Your task to perform on an android device: turn on improve location accuracy Image 0: 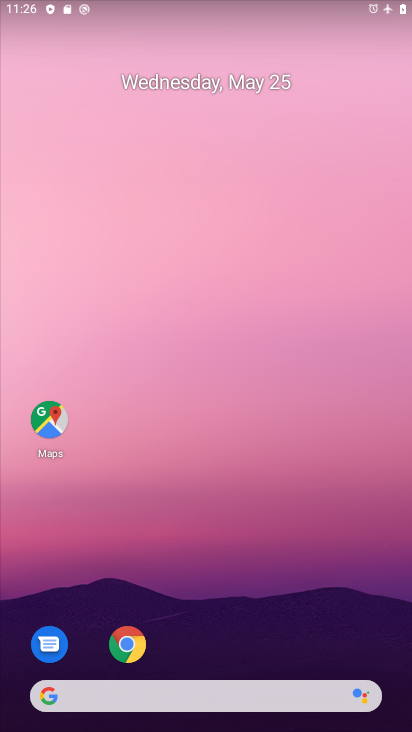
Step 0: drag from (310, 596) to (269, 90)
Your task to perform on an android device: turn on improve location accuracy Image 1: 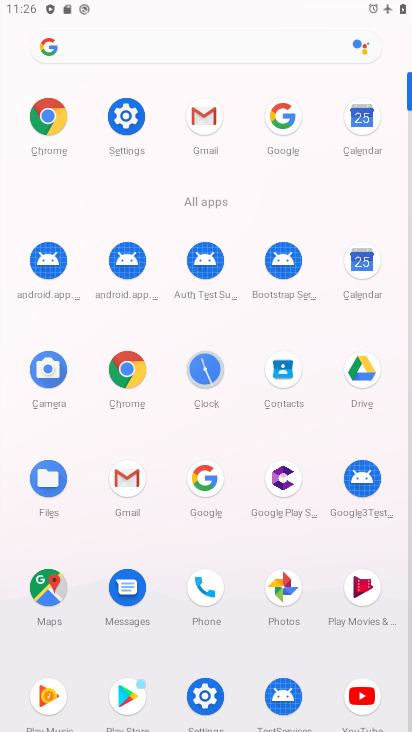
Step 1: click (205, 696)
Your task to perform on an android device: turn on improve location accuracy Image 2: 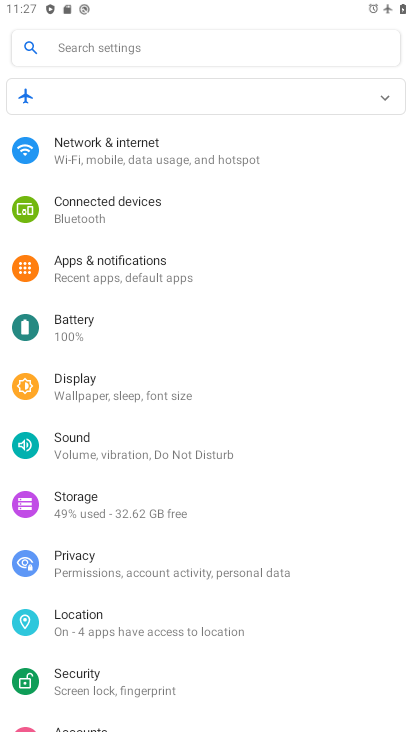
Step 2: click (73, 621)
Your task to perform on an android device: turn on improve location accuracy Image 3: 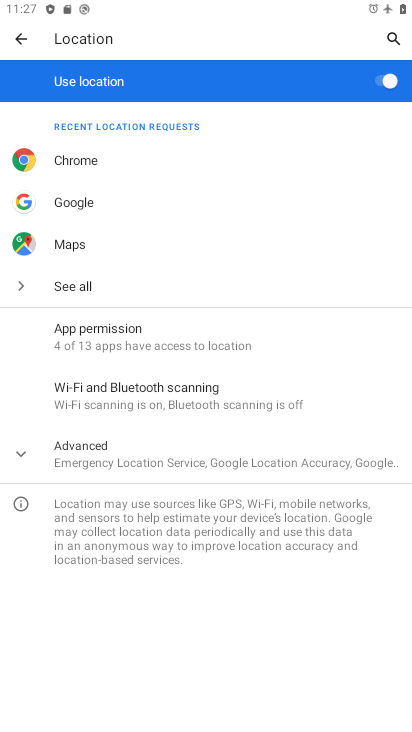
Step 3: click (101, 455)
Your task to perform on an android device: turn on improve location accuracy Image 4: 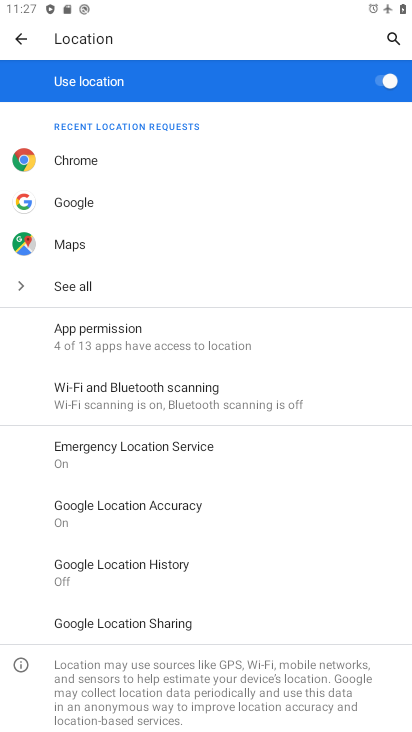
Step 4: click (122, 510)
Your task to perform on an android device: turn on improve location accuracy Image 5: 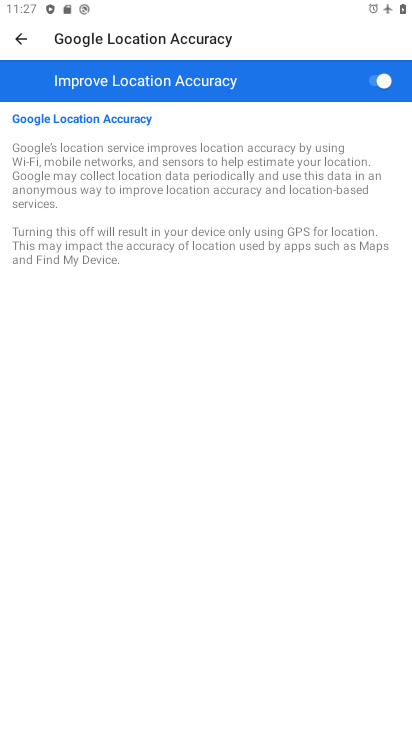
Step 5: task complete